Your task to perform on an android device: set the stopwatch Image 0: 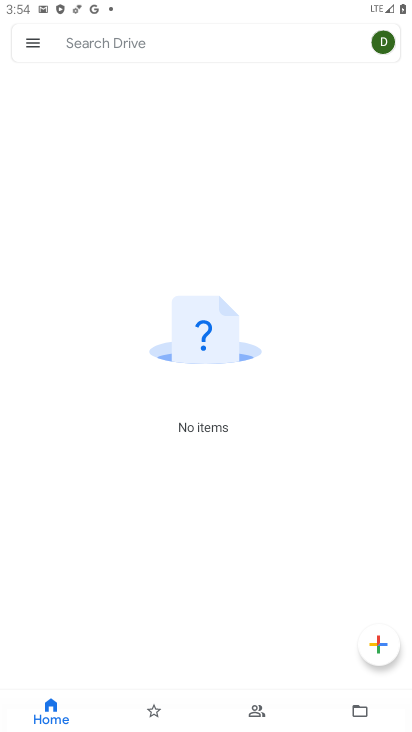
Step 0: press home button
Your task to perform on an android device: set the stopwatch Image 1: 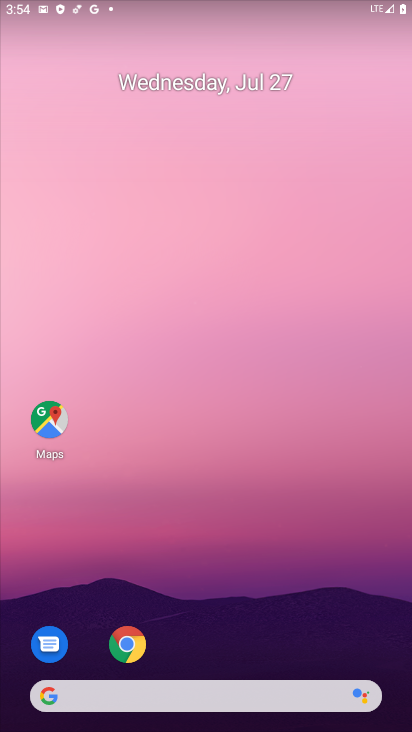
Step 1: drag from (204, 626) to (269, 124)
Your task to perform on an android device: set the stopwatch Image 2: 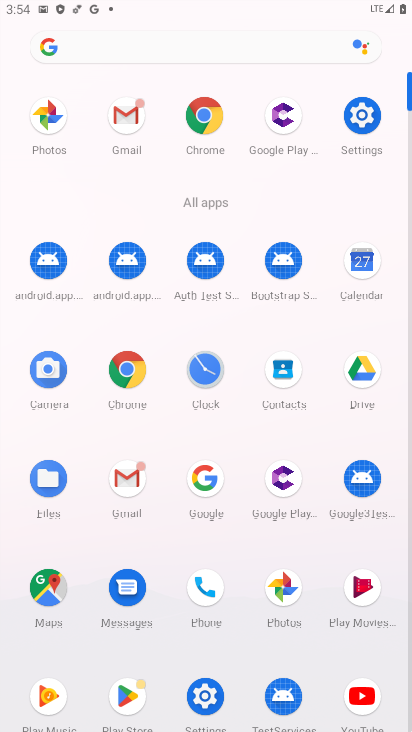
Step 2: click (196, 366)
Your task to perform on an android device: set the stopwatch Image 3: 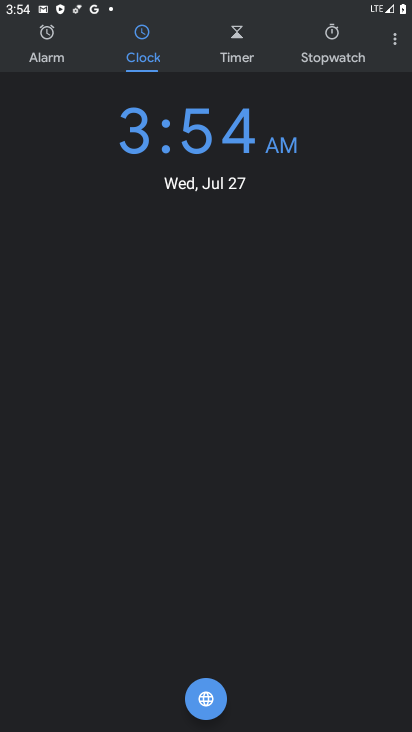
Step 3: click (337, 46)
Your task to perform on an android device: set the stopwatch Image 4: 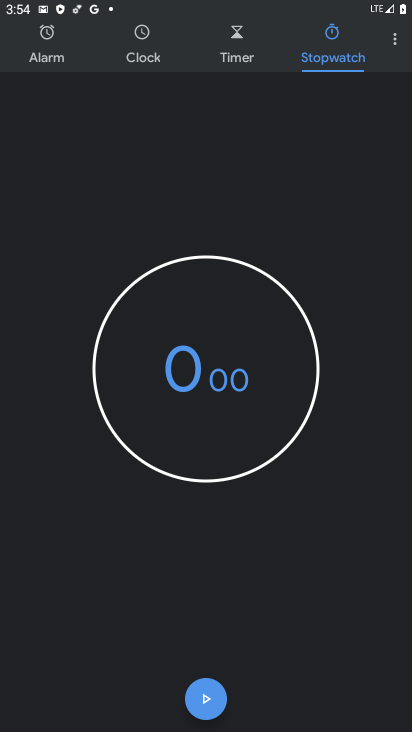
Step 4: click (210, 413)
Your task to perform on an android device: set the stopwatch Image 5: 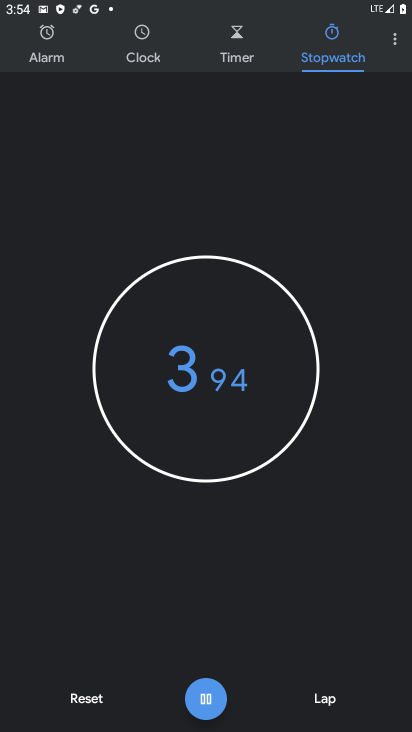
Step 5: type "788"
Your task to perform on an android device: set the stopwatch Image 6: 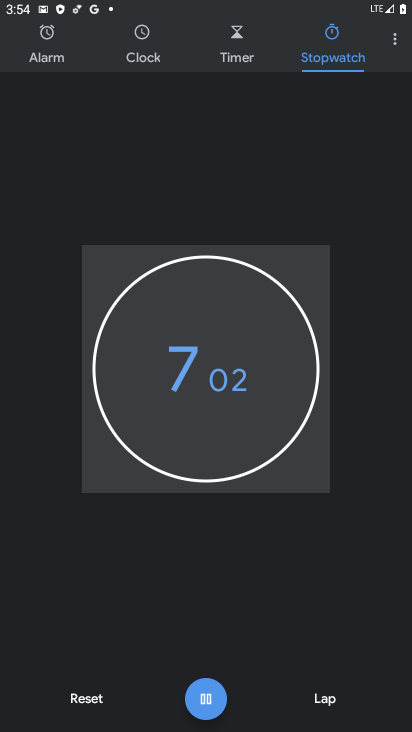
Step 6: task complete